Your task to perform on an android device: Check the weather Image 0: 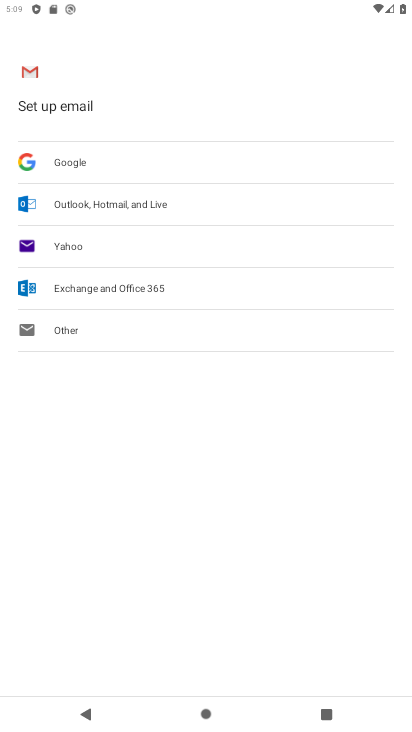
Step 0: press home button
Your task to perform on an android device: Check the weather Image 1: 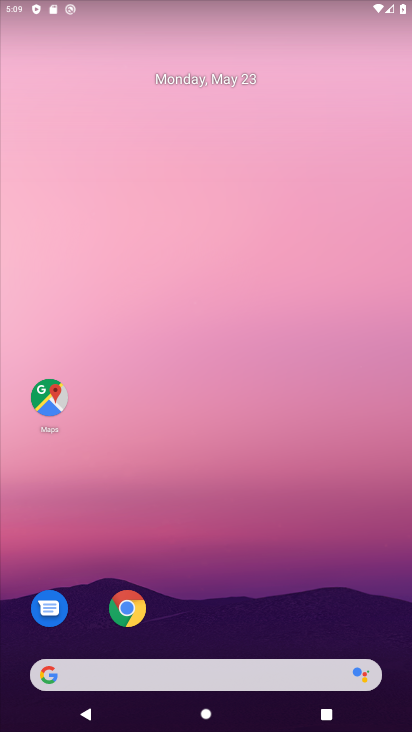
Step 1: click (170, 686)
Your task to perform on an android device: Check the weather Image 2: 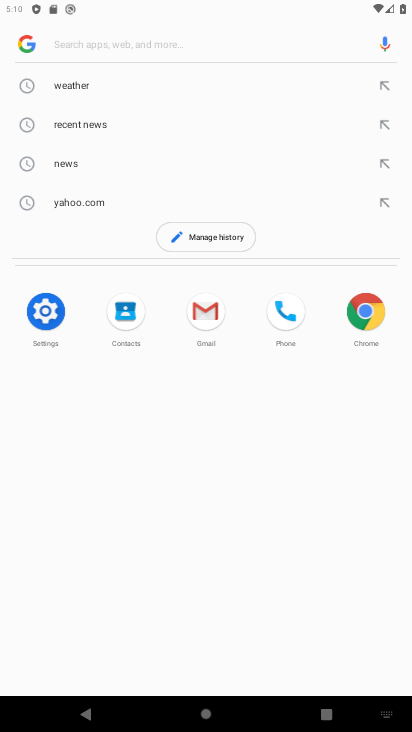
Step 2: click (64, 92)
Your task to perform on an android device: Check the weather Image 3: 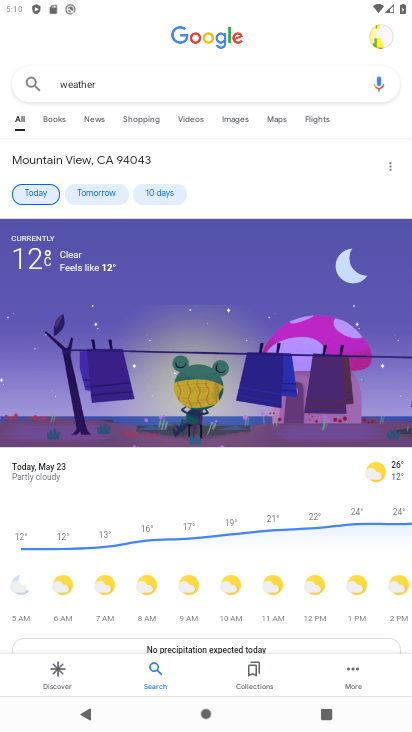
Step 3: task complete